Your task to perform on an android device: turn off priority inbox in the gmail app Image 0: 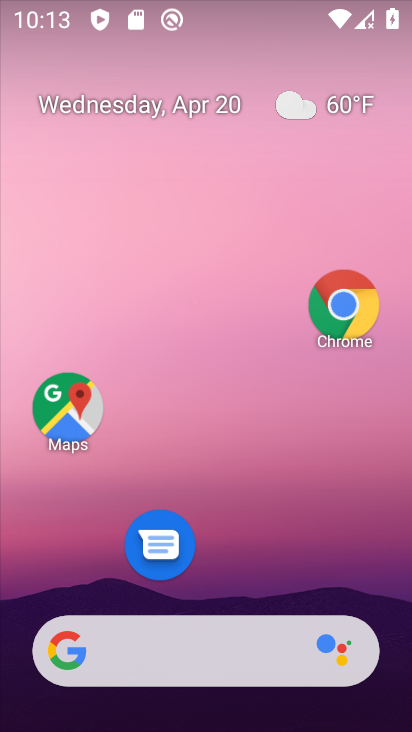
Step 0: drag from (253, 561) to (296, 104)
Your task to perform on an android device: turn off priority inbox in the gmail app Image 1: 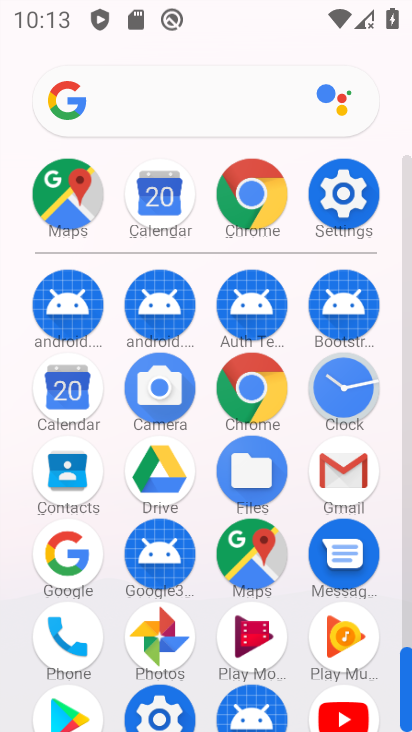
Step 1: click (345, 490)
Your task to perform on an android device: turn off priority inbox in the gmail app Image 2: 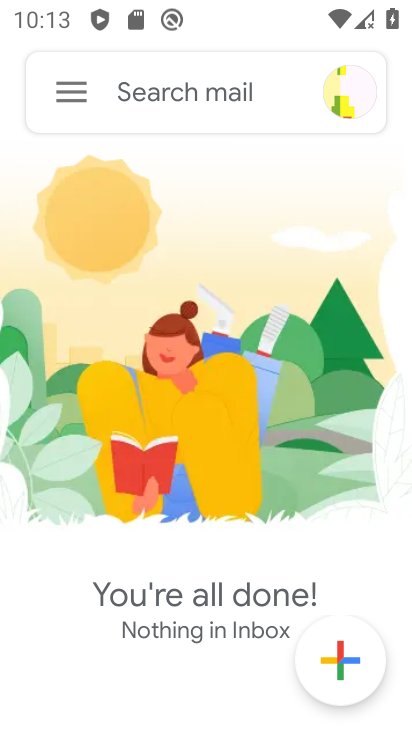
Step 2: click (71, 99)
Your task to perform on an android device: turn off priority inbox in the gmail app Image 3: 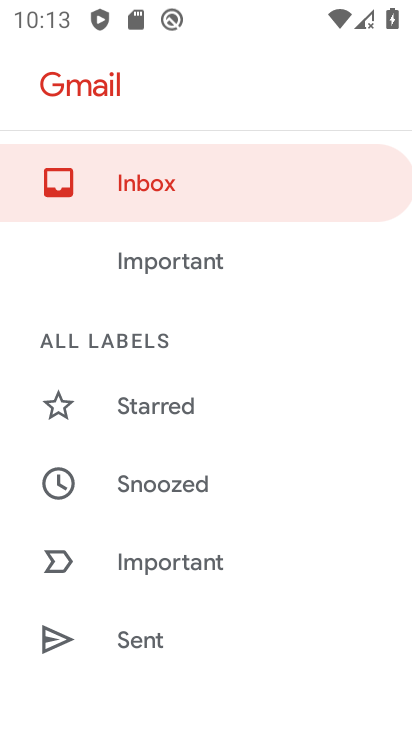
Step 3: drag from (175, 511) to (202, 228)
Your task to perform on an android device: turn off priority inbox in the gmail app Image 4: 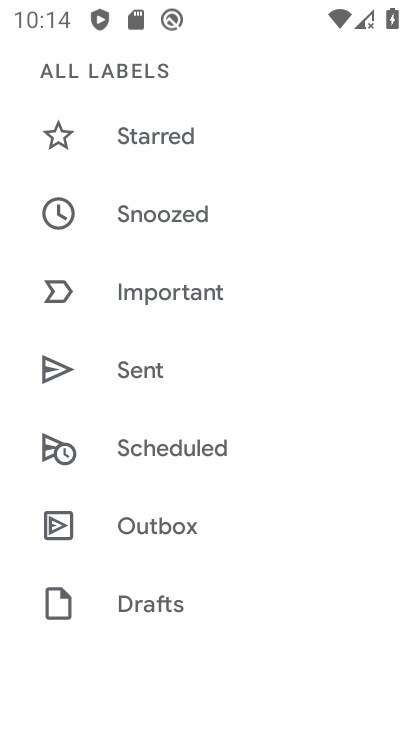
Step 4: drag from (116, 676) to (167, 528)
Your task to perform on an android device: turn off priority inbox in the gmail app Image 5: 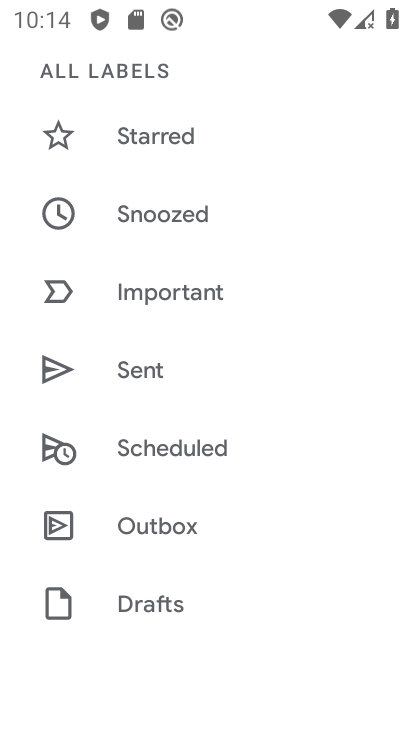
Step 5: drag from (167, 592) to (239, 118)
Your task to perform on an android device: turn off priority inbox in the gmail app Image 6: 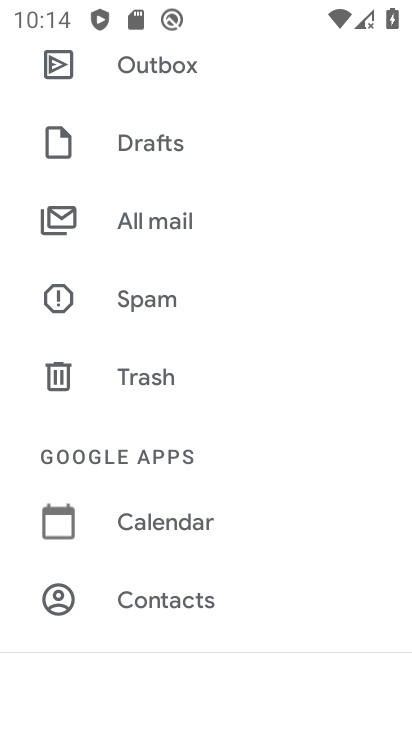
Step 6: click (156, 533)
Your task to perform on an android device: turn off priority inbox in the gmail app Image 7: 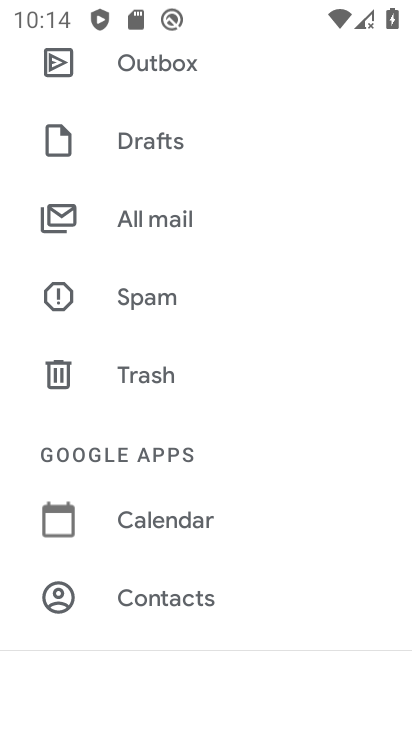
Step 7: drag from (181, 425) to (181, 112)
Your task to perform on an android device: turn off priority inbox in the gmail app Image 8: 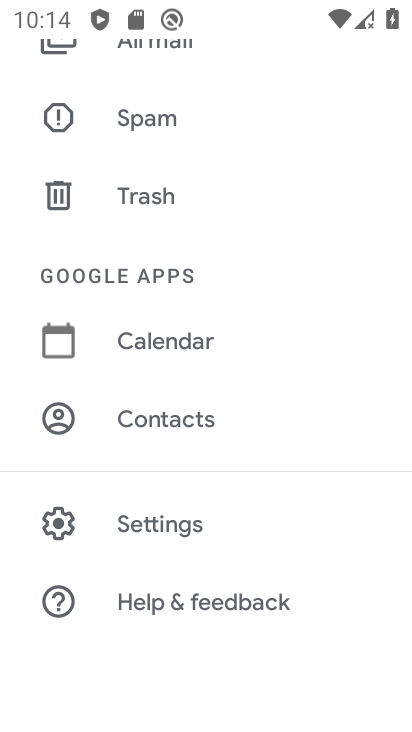
Step 8: click (198, 529)
Your task to perform on an android device: turn off priority inbox in the gmail app Image 9: 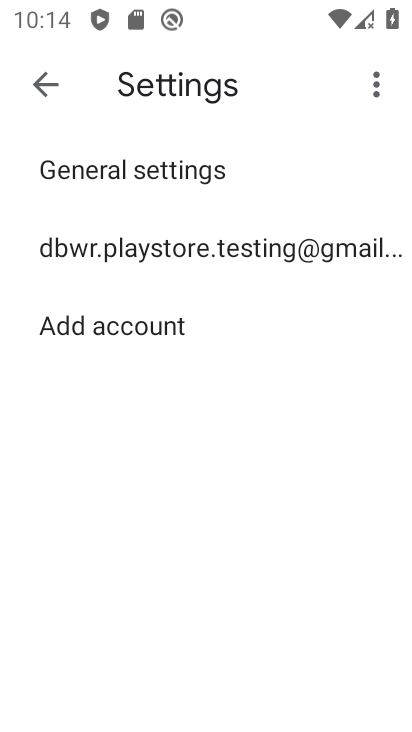
Step 9: click (192, 251)
Your task to perform on an android device: turn off priority inbox in the gmail app Image 10: 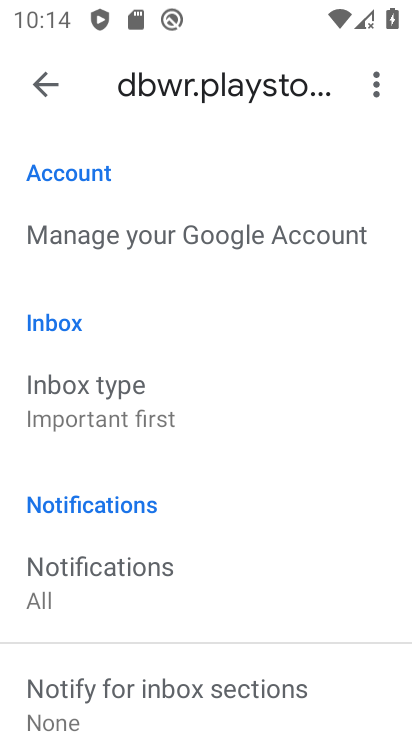
Step 10: click (183, 408)
Your task to perform on an android device: turn off priority inbox in the gmail app Image 11: 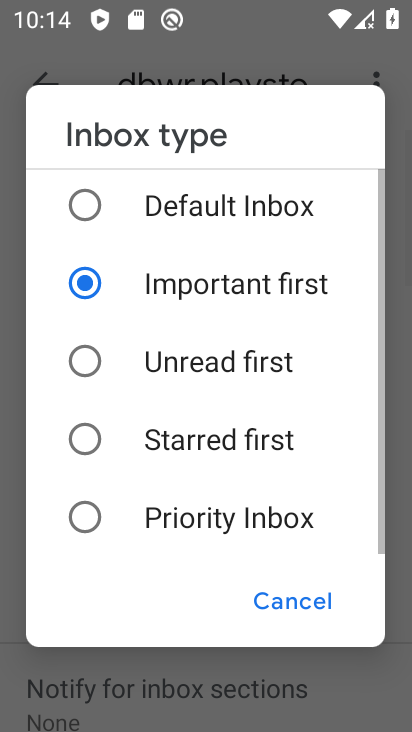
Step 11: task complete